Your task to perform on an android device: turn off notifications settings in the gmail app Image 0: 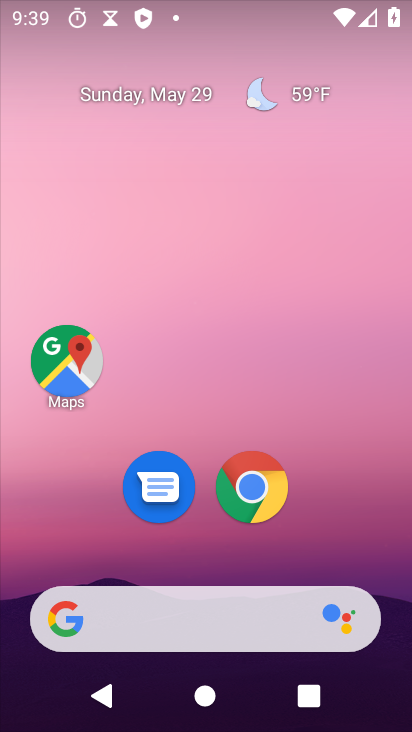
Step 0: drag from (316, 544) to (287, 67)
Your task to perform on an android device: turn off notifications settings in the gmail app Image 1: 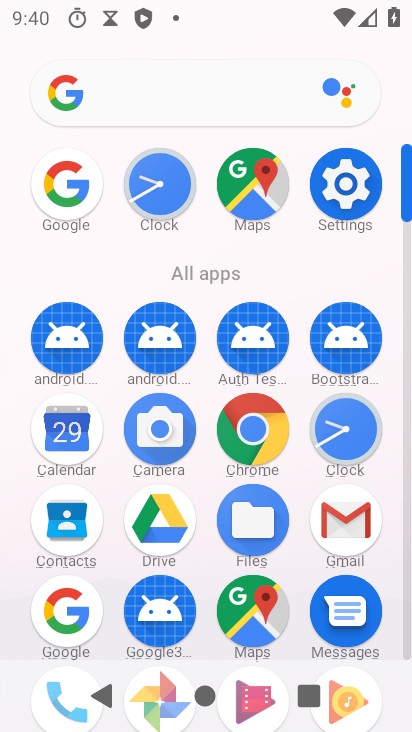
Step 1: click (343, 522)
Your task to perform on an android device: turn off notifications settings in the gmail app Image 2: 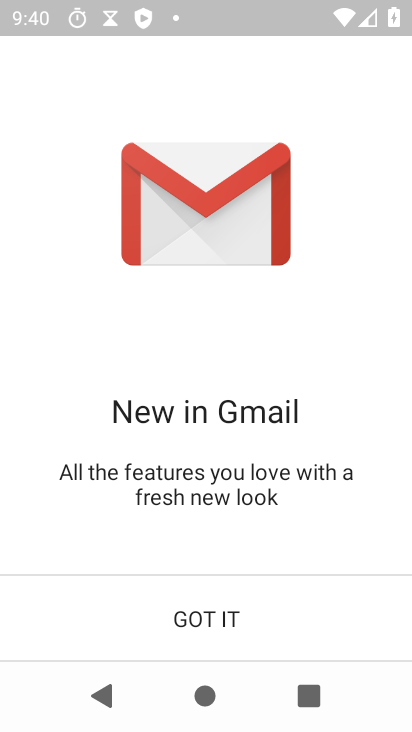
Step 2: click (181, 619)
Your task to perform on an android device: turn off notifications settings in the gmail app Image 3: 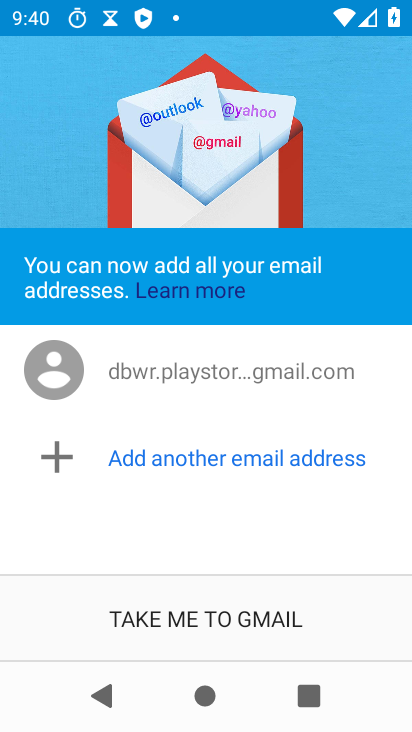
Step 3: click (181, 619)
Your task to perform on an android device: turn off notifications settings in the gmail app Image 4: 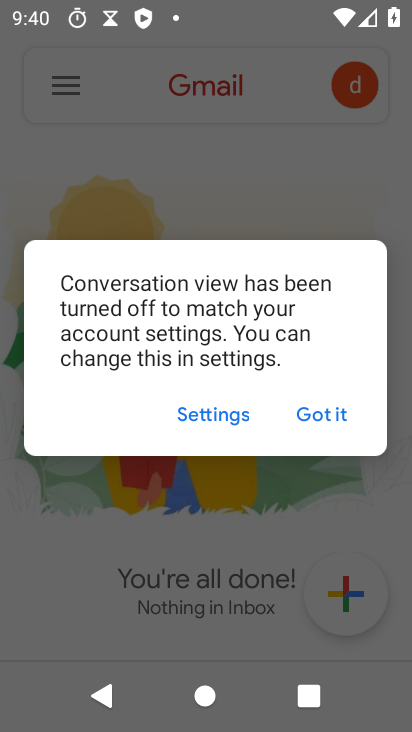
Step 4: click (309, 424)
Your task to perform on an android device: turn off notifications settings in the gmail app Image 5: 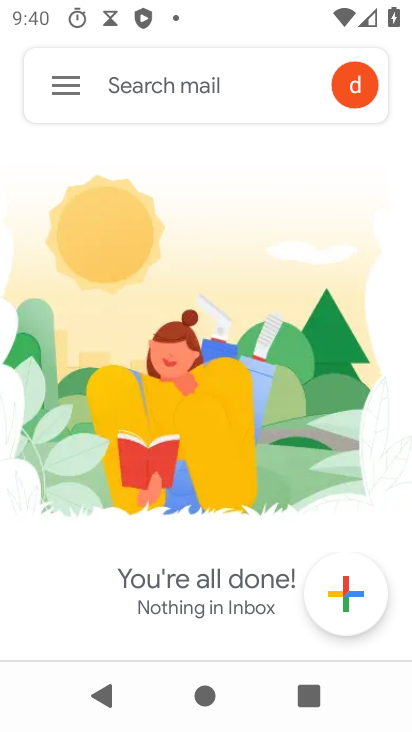
Step 5: click (71, 93)
Your task to perform on an android device: turn off notifications settings in the gmail app Image 6: 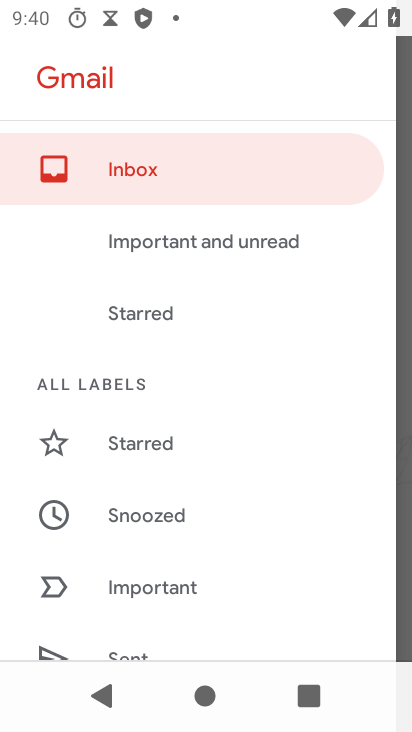
Step 6: drag from (116, 415) to (212, 297)
Your task to perform on an android device: turn off notifications settings in the gmail app Image 7: 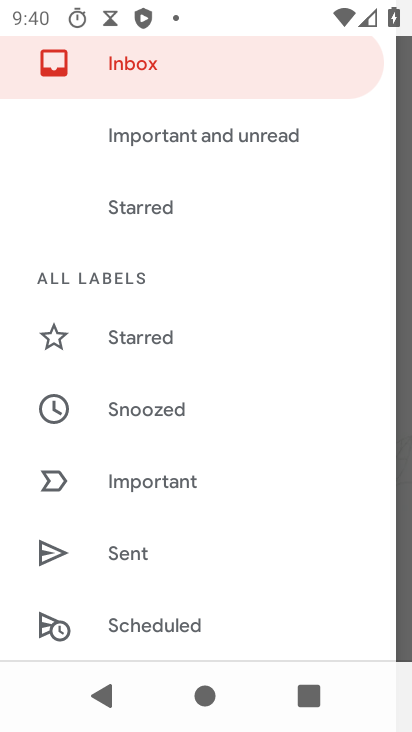
Step 7: drag from (169, 461) to (244, 360)
Your task to perform on an android device: turn off notifications settings in the gmail app Image 8: 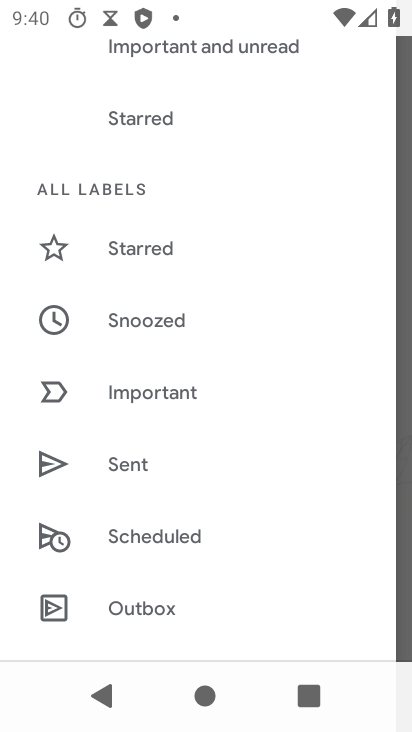
Step 8: drag from (145, 510) to (208, 409)
Your task to perform on an android device: turn off notifications settings in the gmail app Image 9: 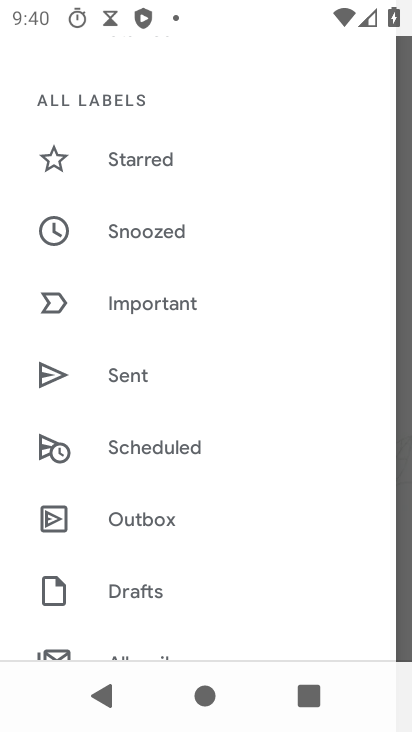
Step 9: drag from (133, 565) to (204, 462)
Your task to perform on an android device: turn off notifications settings in the gmail app Image 10: 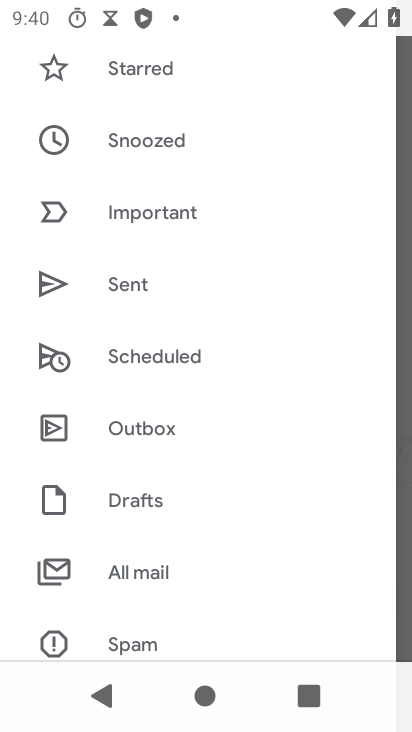
Step 10: drag from (135, 550) to (230, 437)
Your task to perform on an android device: turn off notifications settings in the gmail app Image 11: 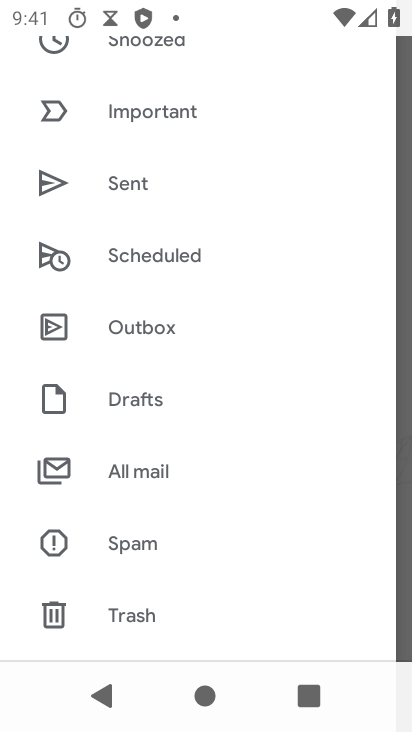
Step 11: drag from (125, 578) to (205, 457)
Your task to perform on an android device: turn off notifications settings in the gmail app Image 12: 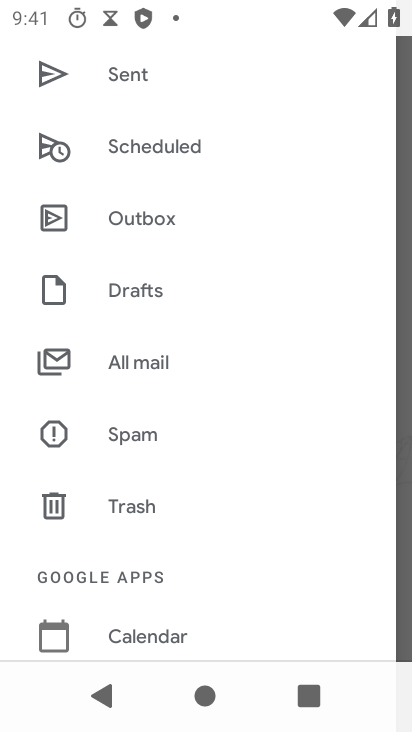
Step 12: drag from (141, 539) to (217, 440)
Your task to perform on an android device: turn off notifications settings in the gmail app Image 13: 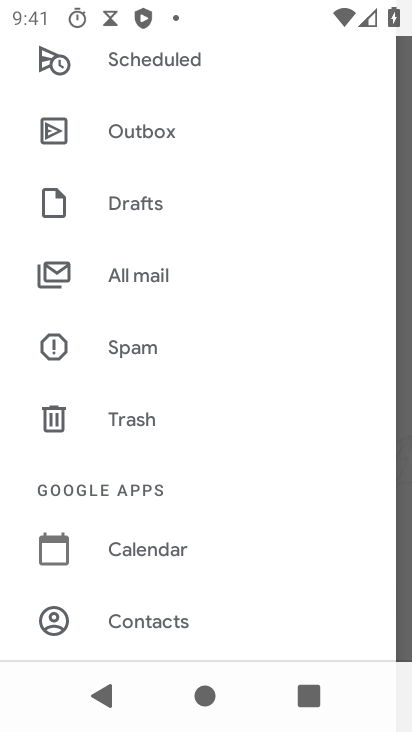
Step 13: drag from (117, 582) to (217, 457)
Your task to perform on an android device: turn off notifications settings in the gmail app Image 14: 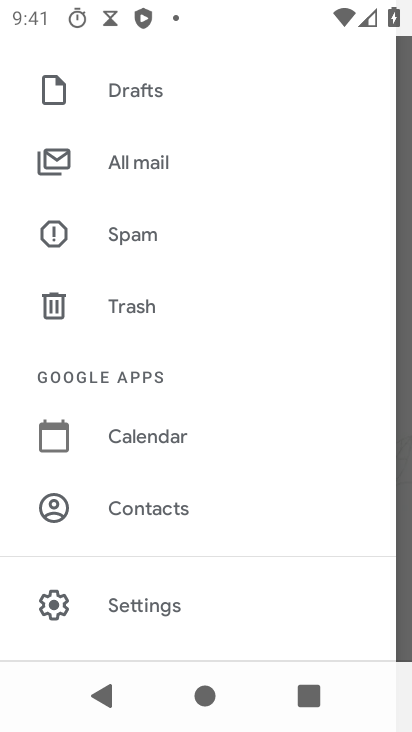
Step 14: drag from (131, 584) to (233, 475)
Your task to perform on an android device: turn off notifications settings in the gmail app Image 15: 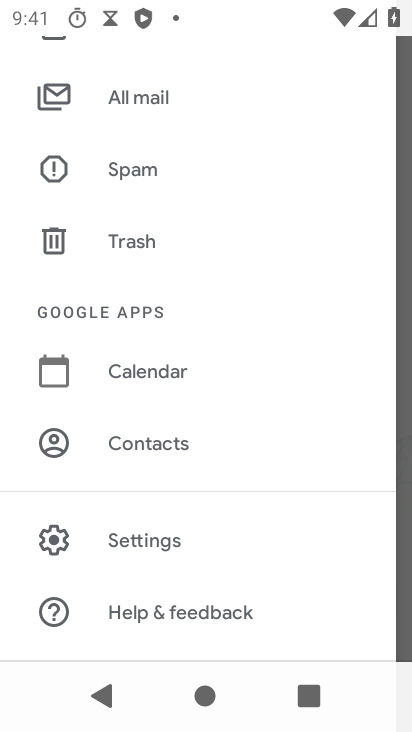
Step 15: click (160, 542)
Your task to perform on an android device: turn off notifications settings in the gmail app Image 16: 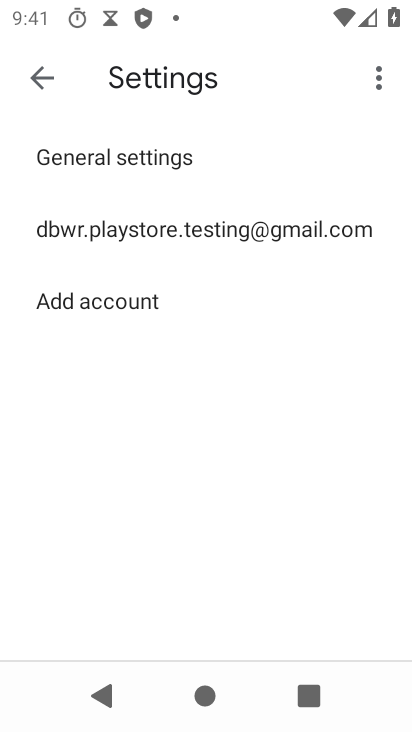
Step 16: click (282, 229)
Your task to perform on an android device: turn off notifications settings in the gmail app Image 17: 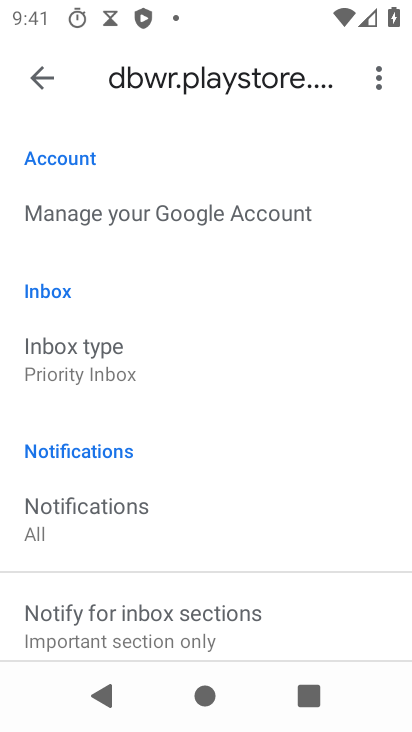
Step 17: drag from (133, 528) to (226, 416)
Your task to perform on an android device: turn off notifications settings in the gmail app Image 18: 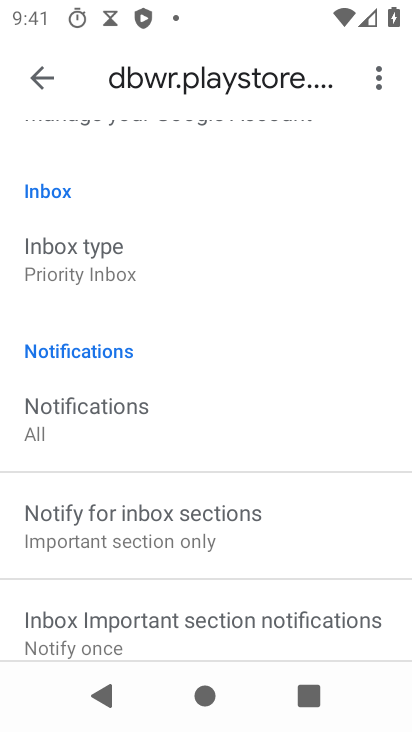
Step 18: drag from (111, 584) to (222, 463)
Your task to perform on an android device: turn off notifications settings in the gmail app Image 19: 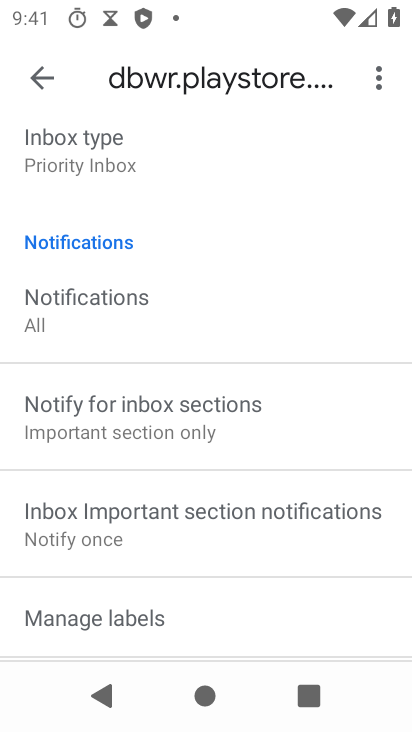
Step 19: drag from (161, 576) to (281, 427)
Your task to perform on an android device: turn off notifications settings in the gmail app Image 20: 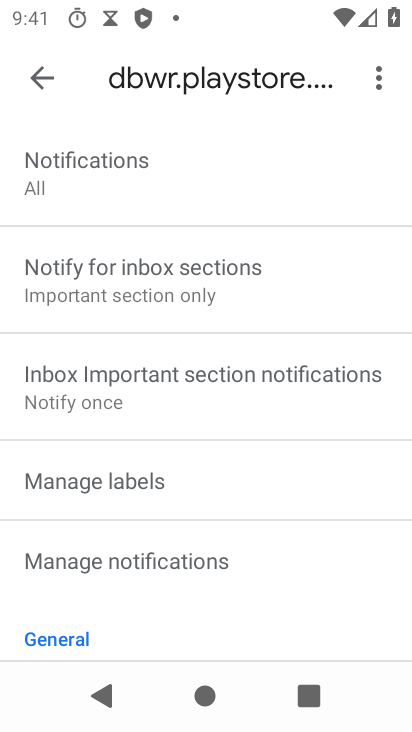
Step 20: click (158, 556)
Your task to perform on an android device: turn off notifications settings in the gmail app Image 21: 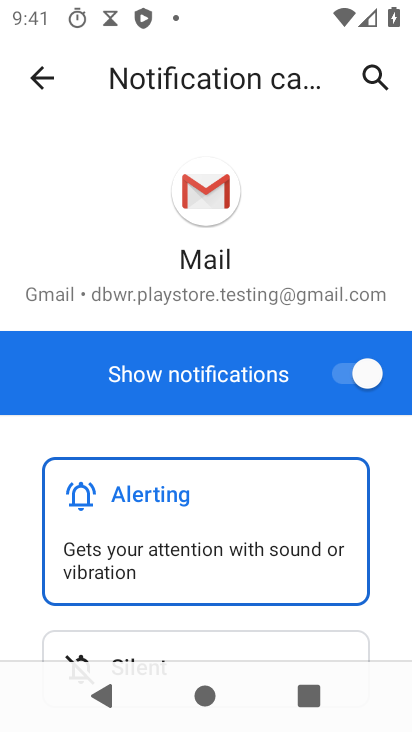
Step 21: drag from (194, 548) to (242, 430)
Your task to perform on an android device: turn off notifications settings in the gmail app Image 22: 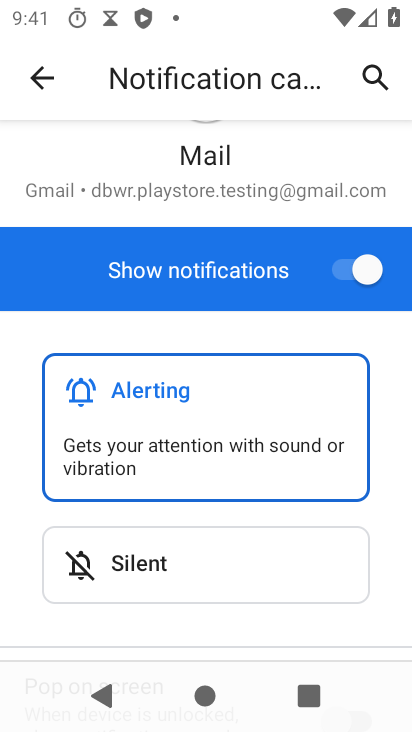
Step 22: drag from (216, 557) to (288, 431)
Your task to perform on an android device: turn off notifications settings in the gmail app Image 23: 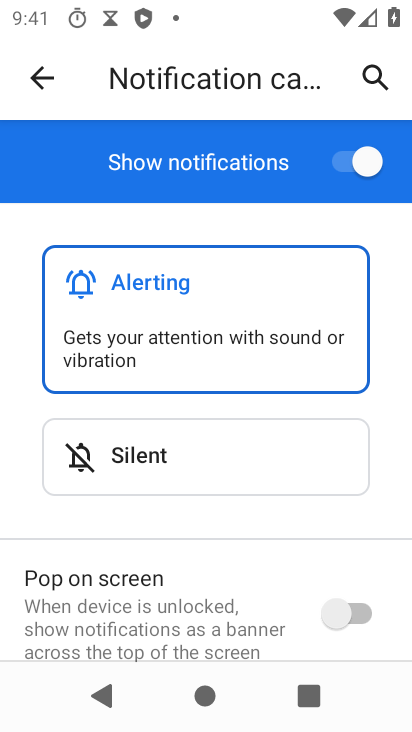
Step 23: drag from (206, 601) to (266, 480)
Your task to perform on an android device: turn off notifications settings in the gmail app Image 24: 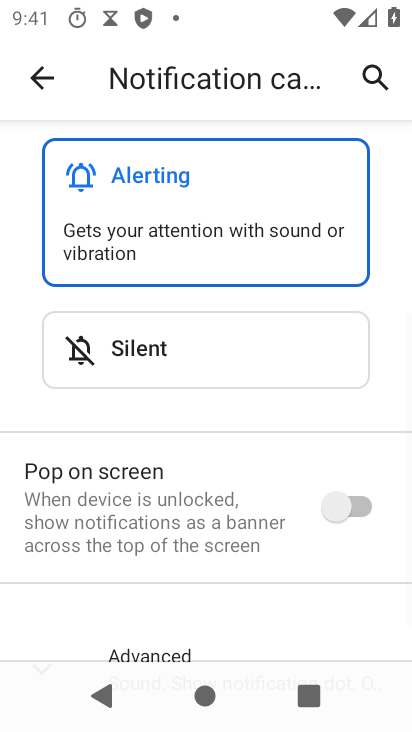
Step 24: drag from (272, 305) to (272, 529)
Your task to perform on an android device: turn off notifications settings in the gmail app Image 25: 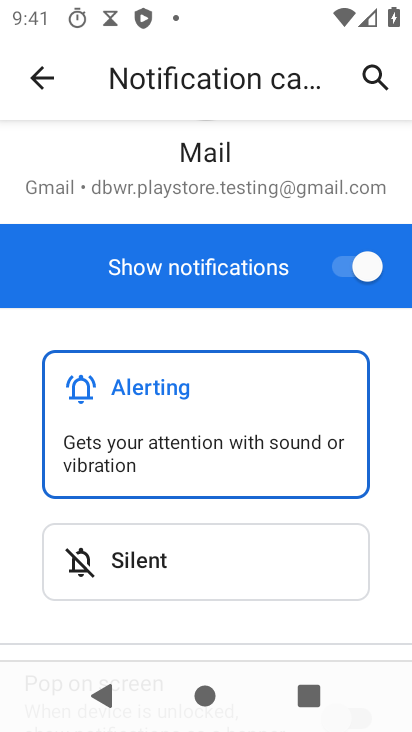
Step 25: click (336, 274)
Your task to perform on an android device: turn off notifications settings in the gmail app Image 26: 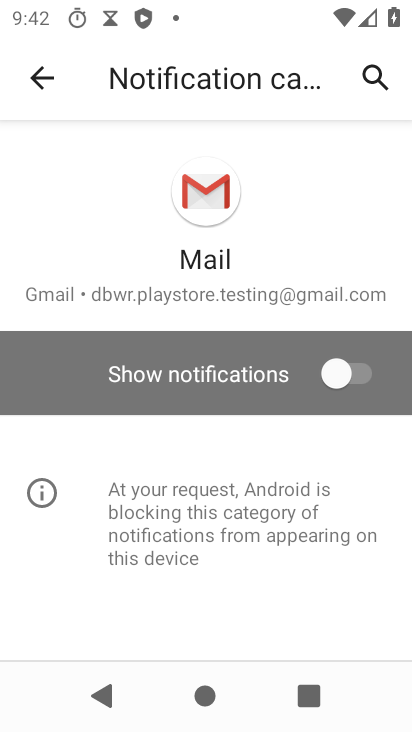
Step 26: task complete